Your task to perform on an android device: Go to accessibility settings Image 0: 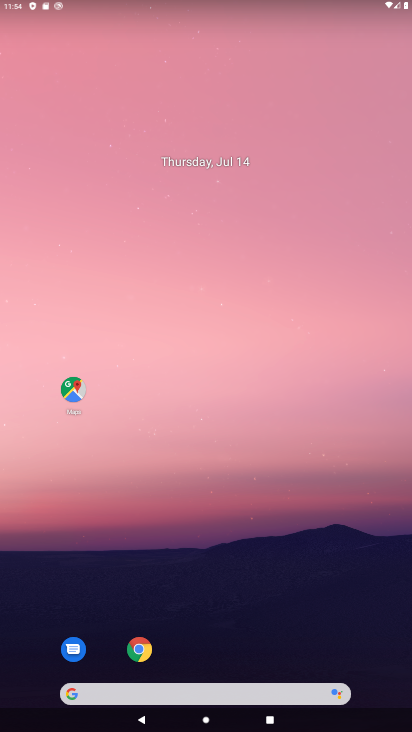
Step 0: drag from (193, 651) to (193, 196)
Your task to perform on an android device: Go to accessibility settings Image 1: 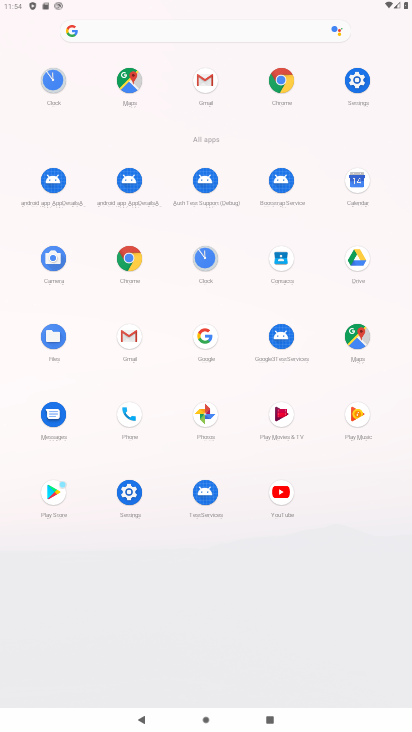
Step 1: click (361, 72)
Your task to perform on an android device: Go to accessibility settings Image 2: 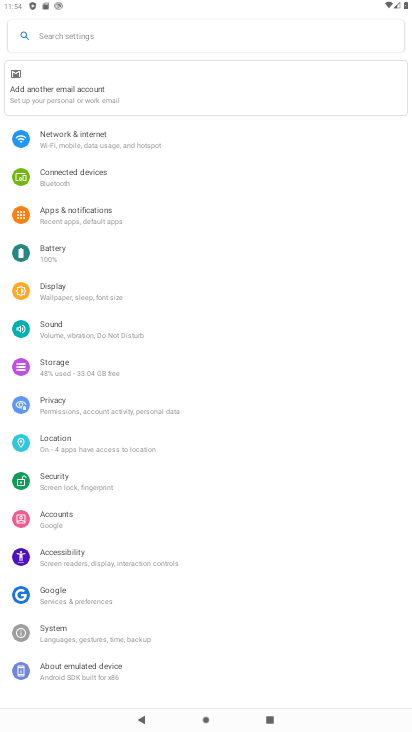
Step 2: click (100, 554)
Your task to perform on an android device: Go to accessibility settings Image 3: 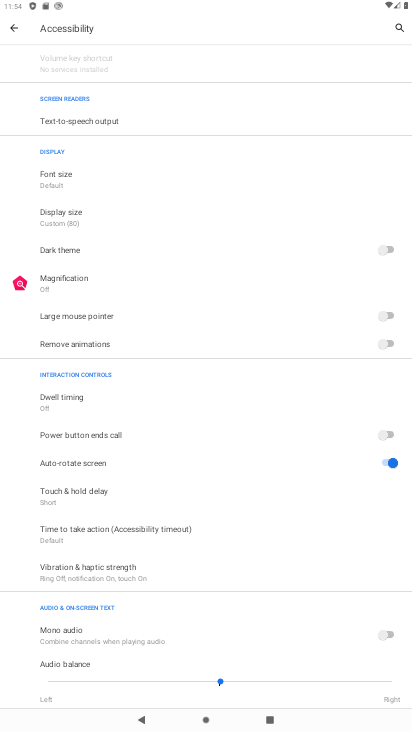
Step 3: task complete